Your task to perform on an android device: toggle wifi Image 0: 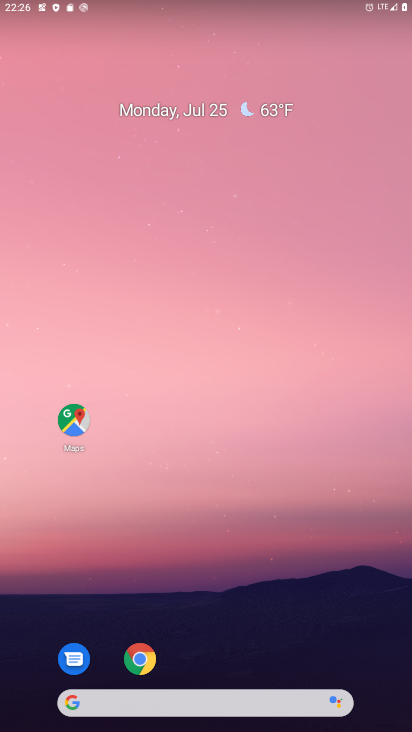
Step 0: drag from (201, 699) to (158, 9)
Your task to perform on an android device: toggle wifi Image 1: 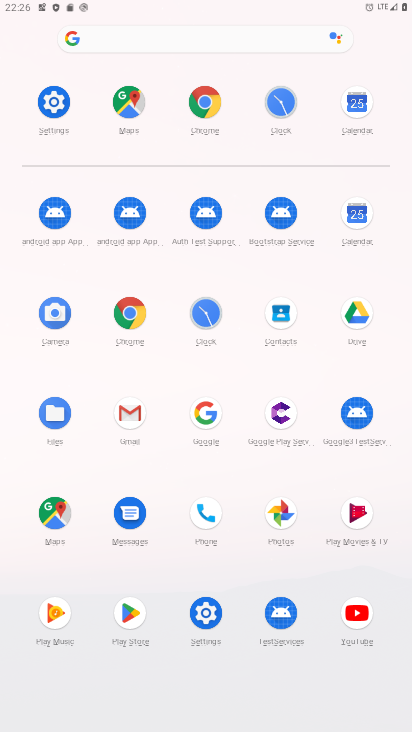
Step 1: click (59, 100)
Your task to perform on an android device: toggle wifi Image 2: 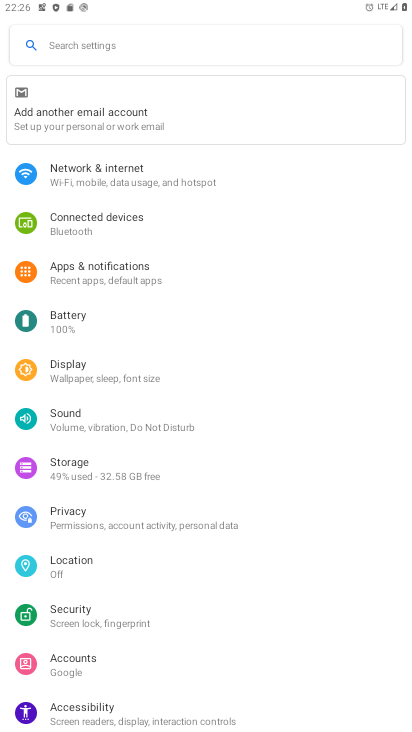
Step 2: click (88, 174)
Your task to perform on an android device: toggle wifi Image 3: 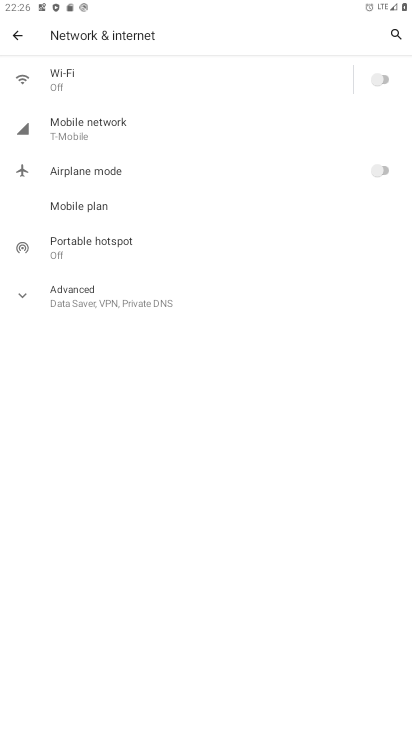
Step 3: click (384, 79)
Your task to perform on an android device: toggle wifi Image 4: 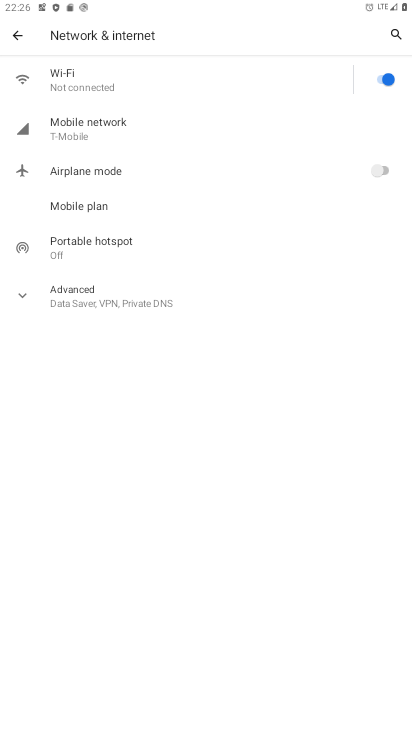
Step 4: task complete